Your task to perform on an android device: Open the stopwatch Image 0: 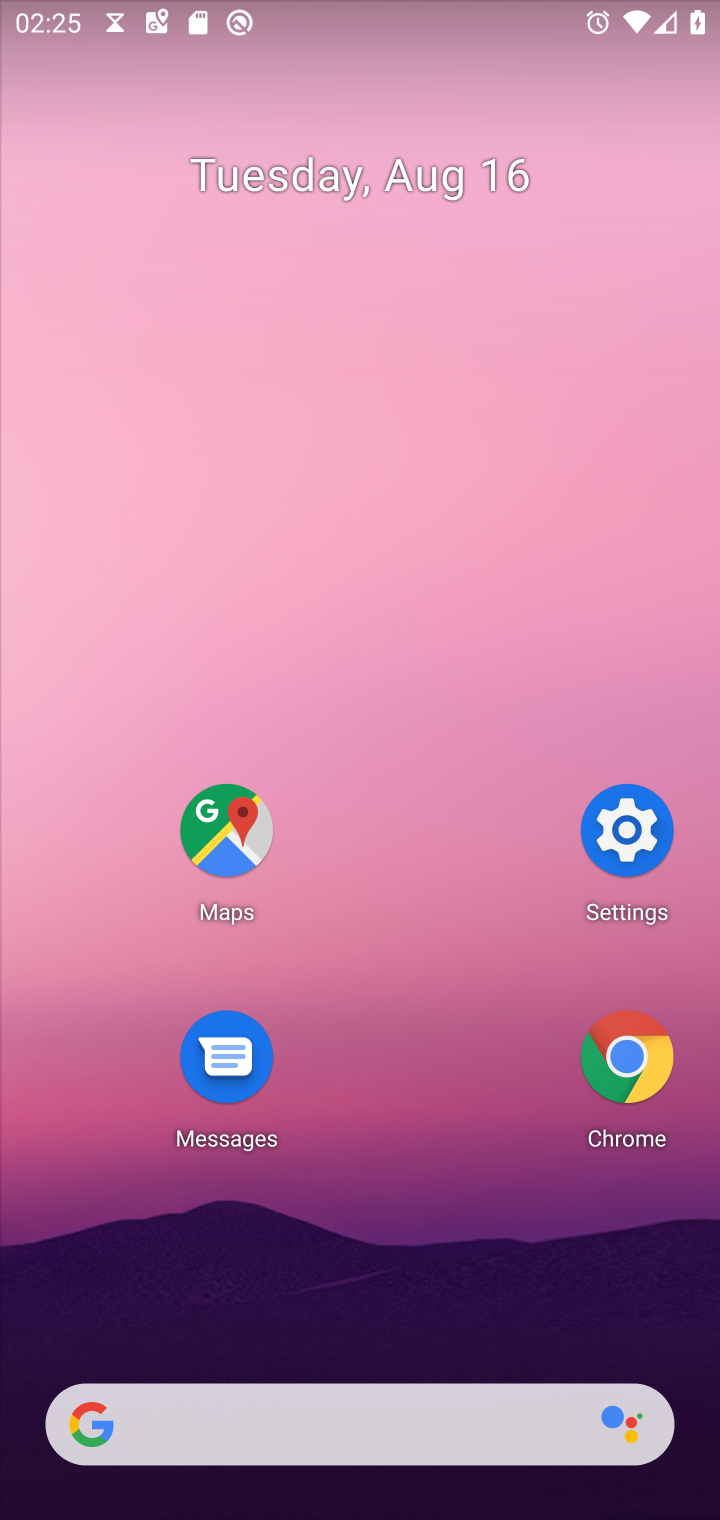
Step 0: drag from (370, 1365) to (577, 375)
Your task to perform on an android device: Open the stopwatch Image 1: 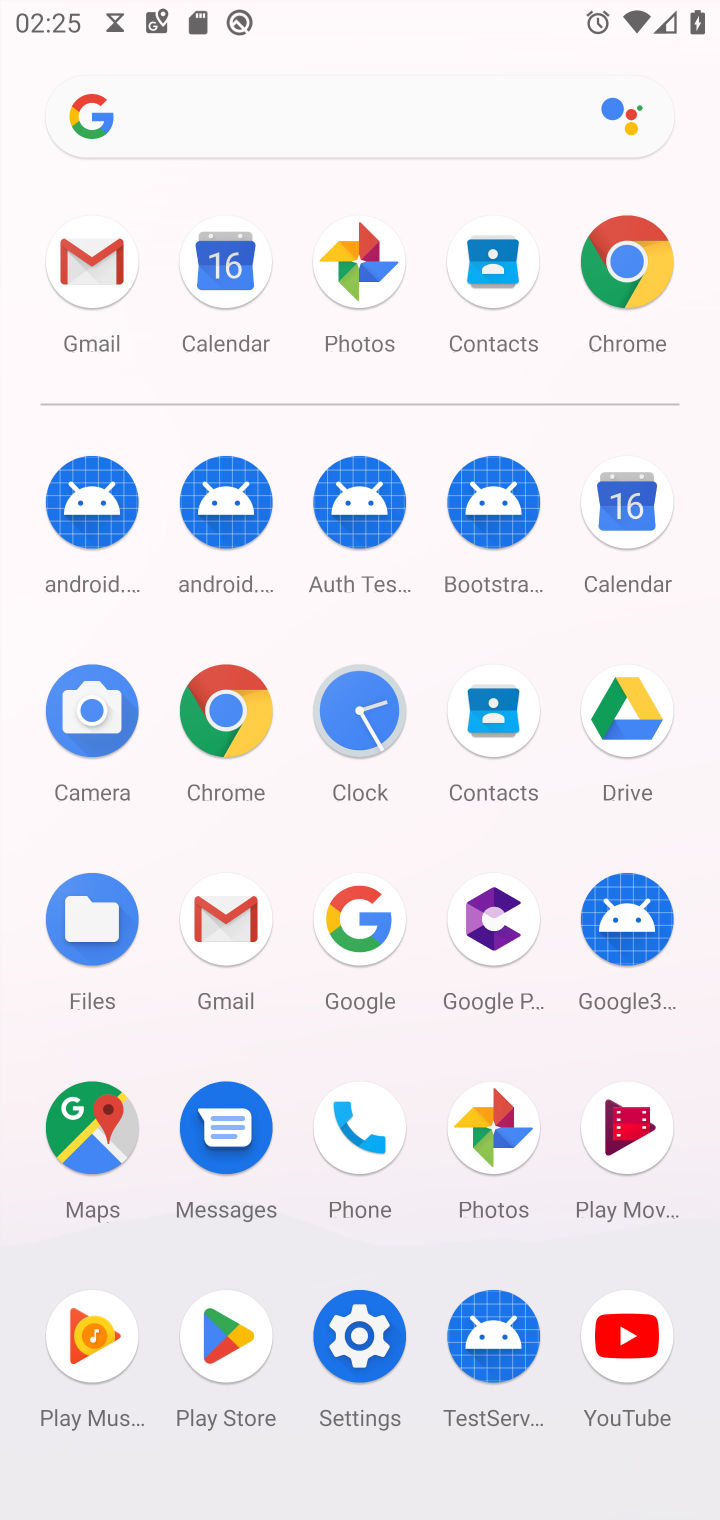
Step 1: click (365, 715)
Your task to perform on an android device: Open the stopwatch Image 2: 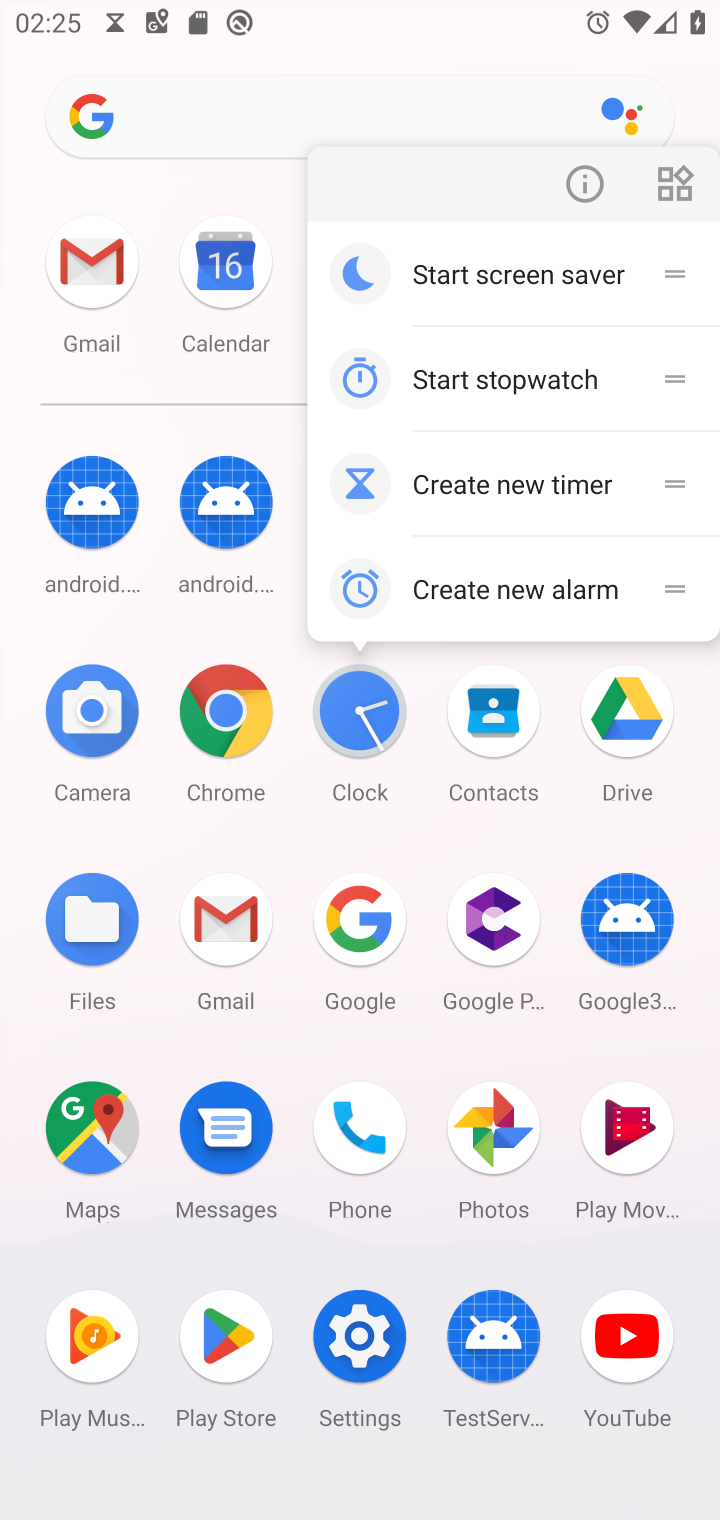
Step 2: click (355, 721)
Your task to perform on an android device: Open the stopwatch Image 3: 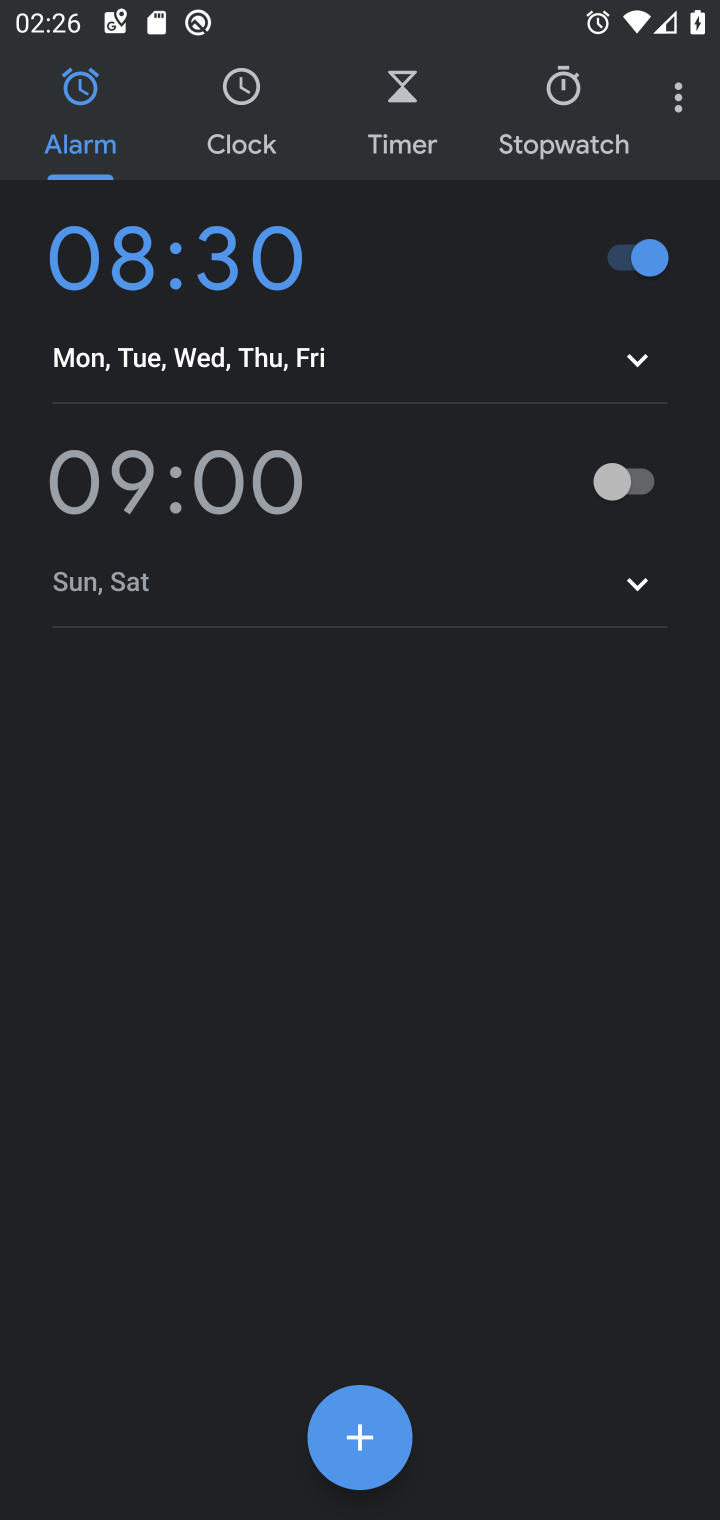
Step 3: click (543, 110)
Your task to perform on an android device: Open the stopwatch Image 4: 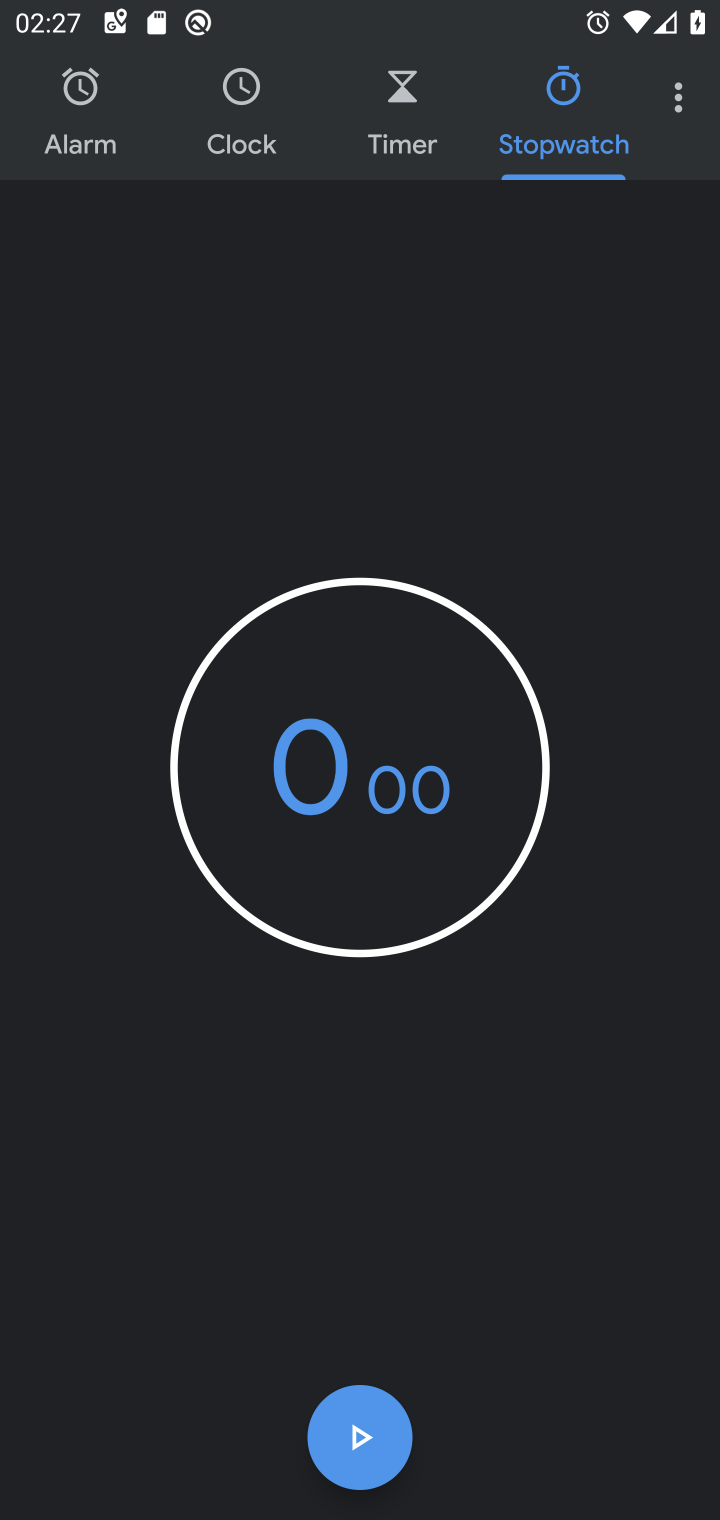
Step 4: task complete